Your task to perform on an android device: turn off notifications in google photos Image 0: 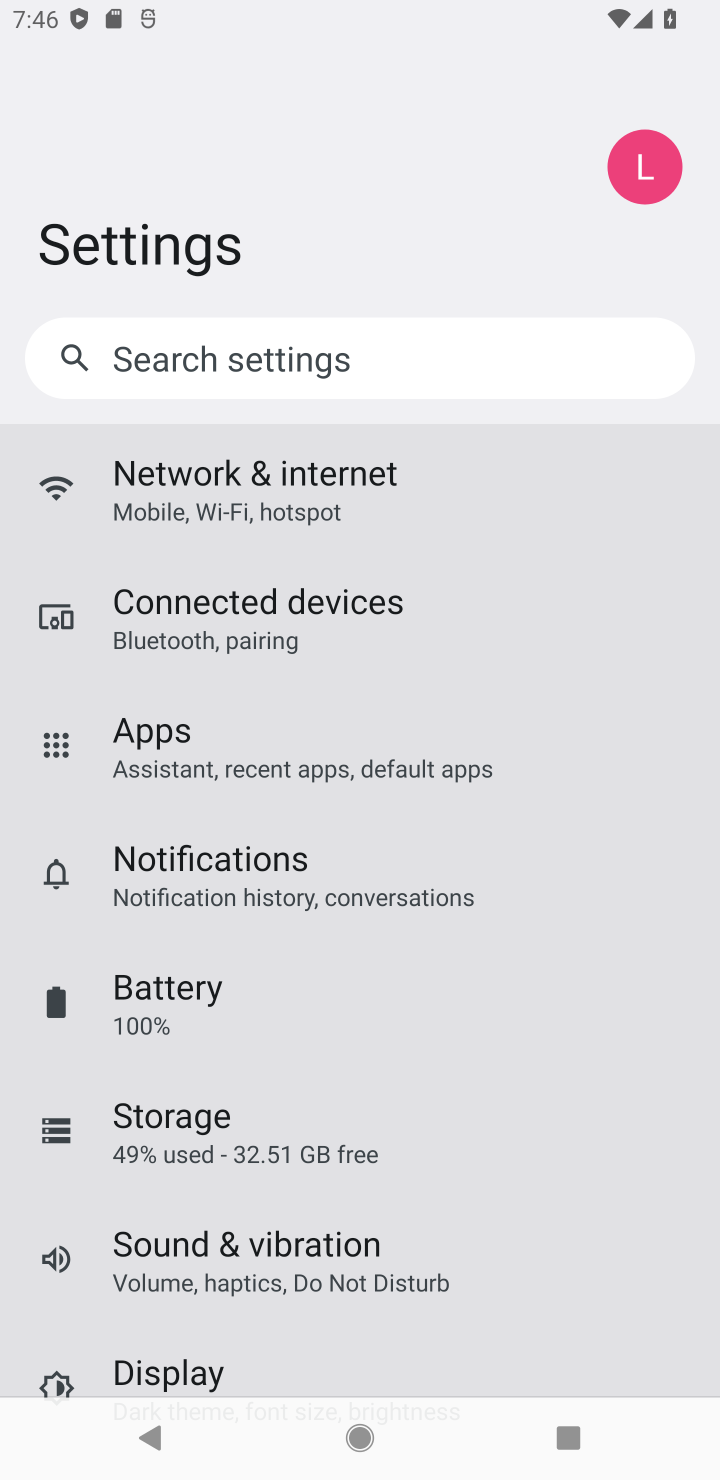
Step 0: click (102, 906)
Your task to perform on an android device: turn off notifications in google photos Image 1: 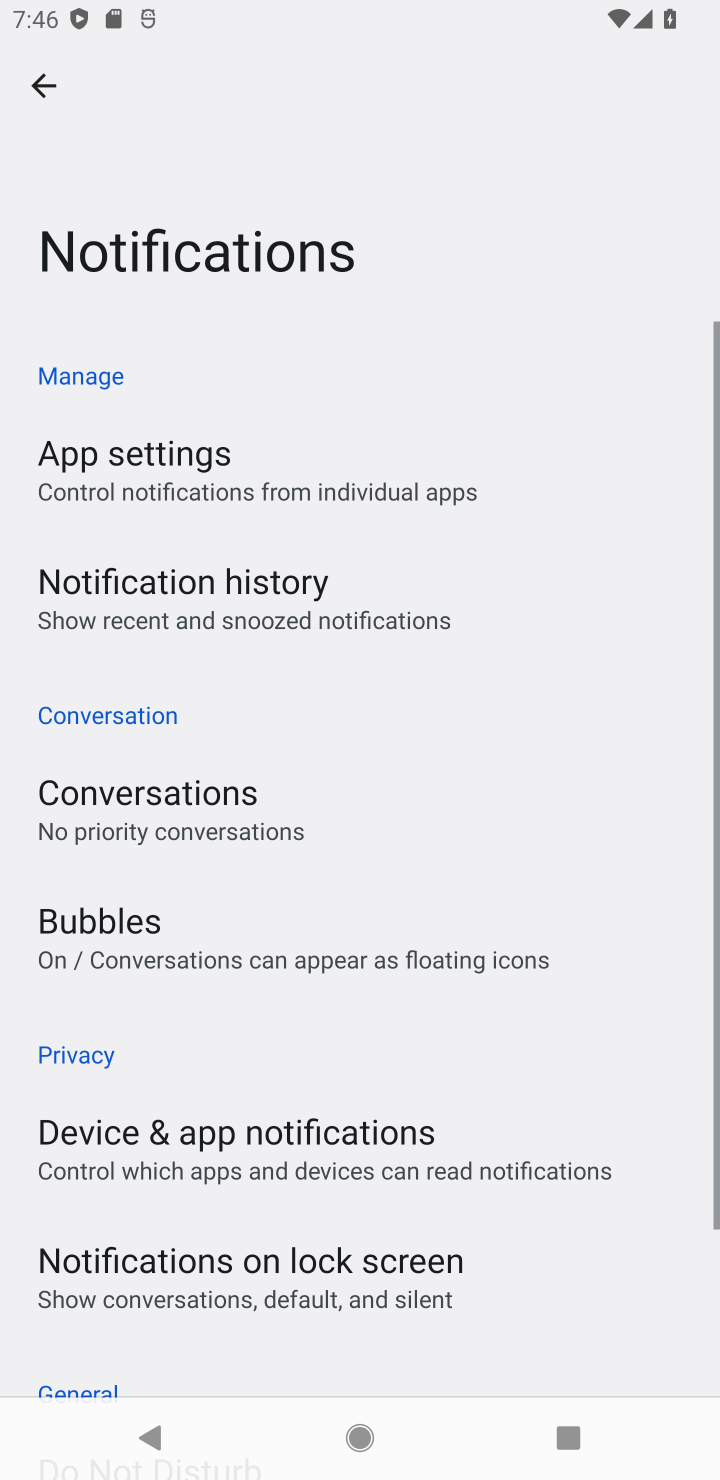
Step 1: task complete